Your task to perform on an android device: Search for the best 100% cotton t-shirts Image 0: 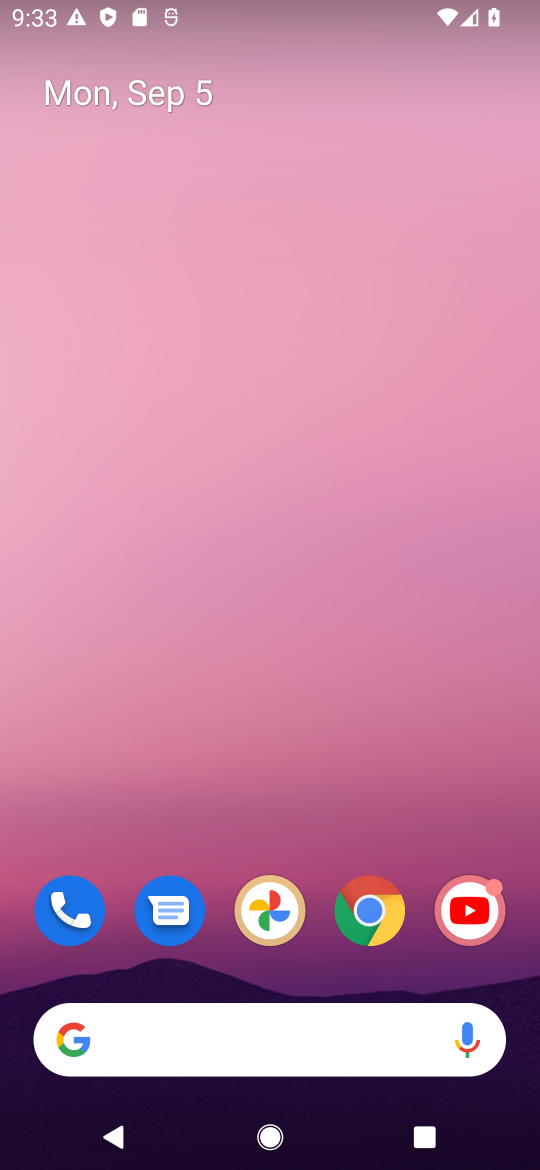
Step 0: click (365, 904)
Your task to perform on an android device: Search for the best 100% cotton t-shirts Image 1: 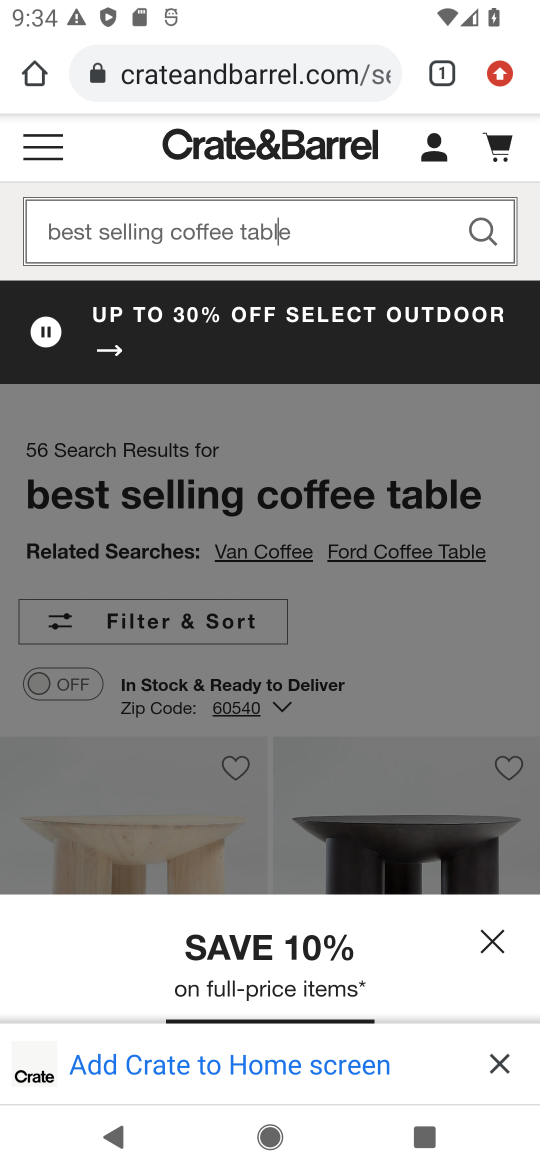
Step 1: click (306, 39)
Your task to perform on an android device: Search for the best 100% cotton t-shirts Image 2: 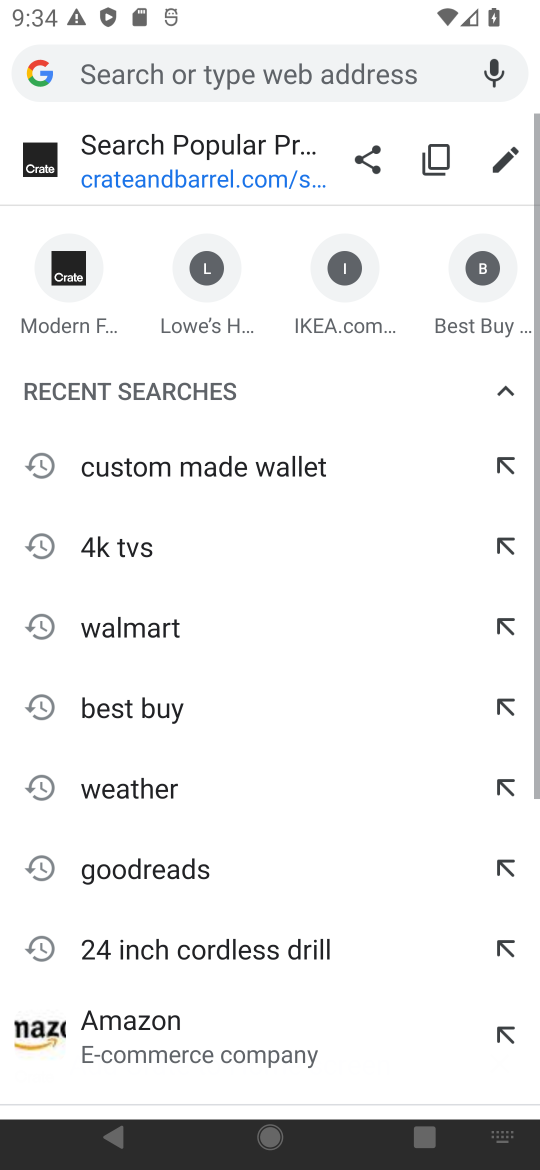
Step 2: click (295, 68)
Your task to perform on an android device: Search for the best 100% cotton t-shirts Image 3: 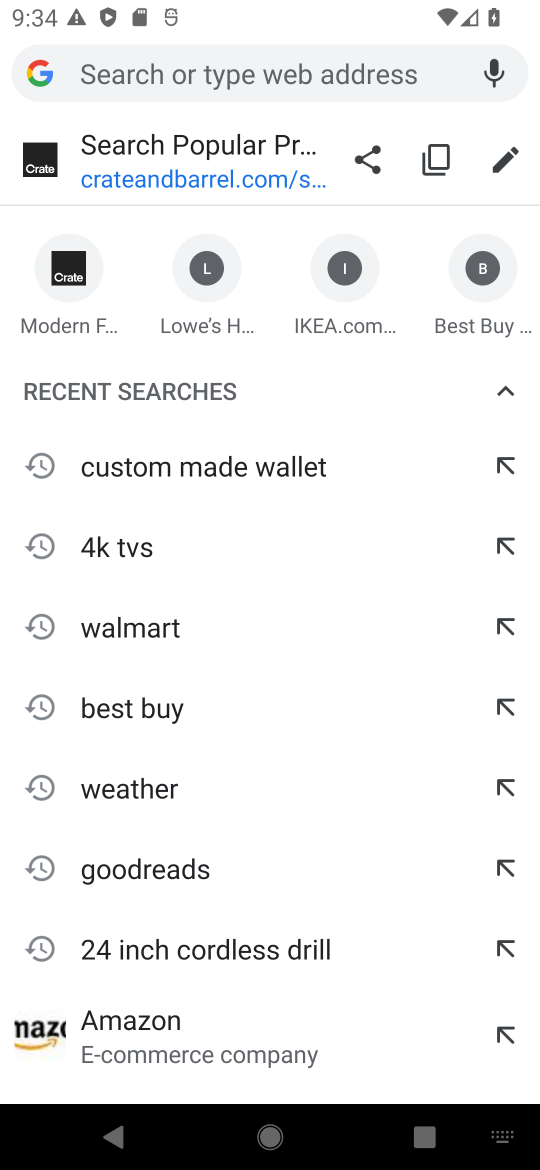
Step 3: type "100% cotton t-shirts"
Your task to perform on an android device: Search for the best 100% cotton t-shirts Image 4: 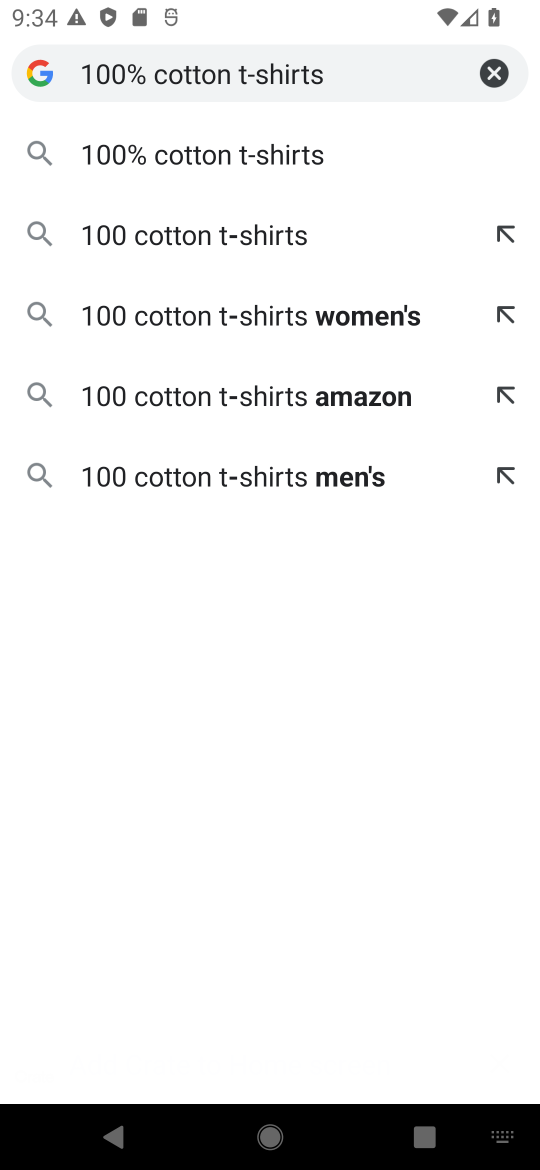
Step 4: click (432, 161)
Your task to perform on an android device: Search for the best 100% cotton t-shirts Image 5: 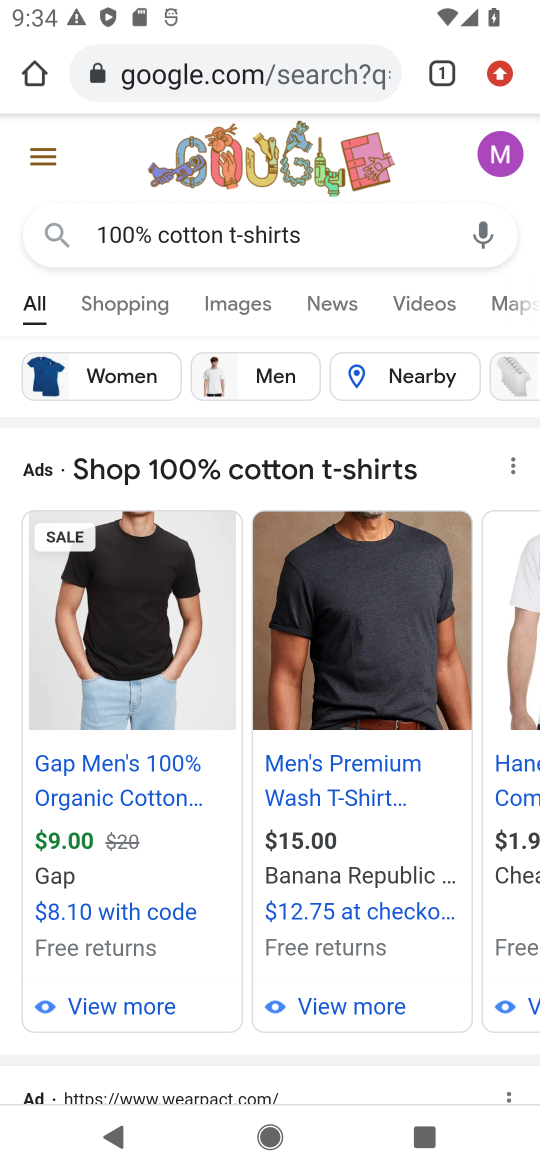
Step 5: task complete